Your task to perform on an android device: check storage Image 0: 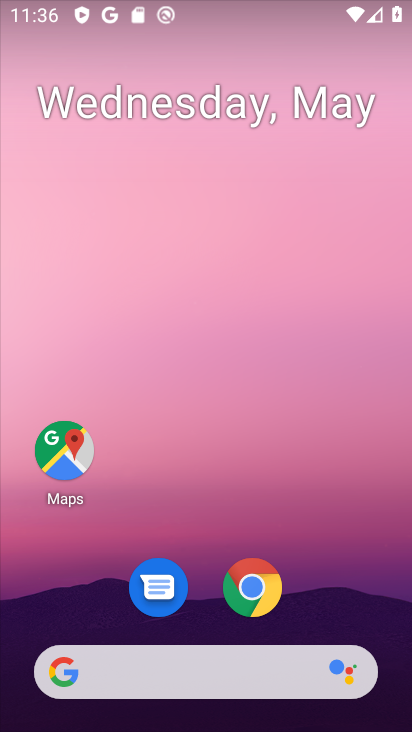
Step 0: drag from (318, 617) to (305, 17)
Your task to perform on an android device: check storage Image 1: 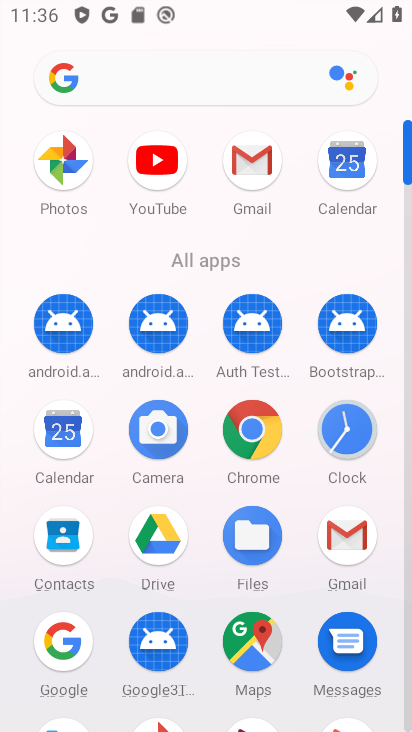
Step 1: drag from (203, 489) to (167, 52)
Your task to perform on an android device: check storage Image 2: 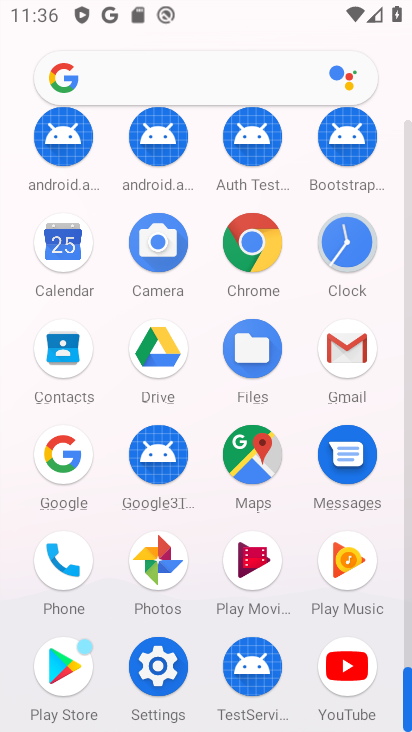
Step 2: click (170, 678)
Your task to perform on an android device: check storage Image 3: 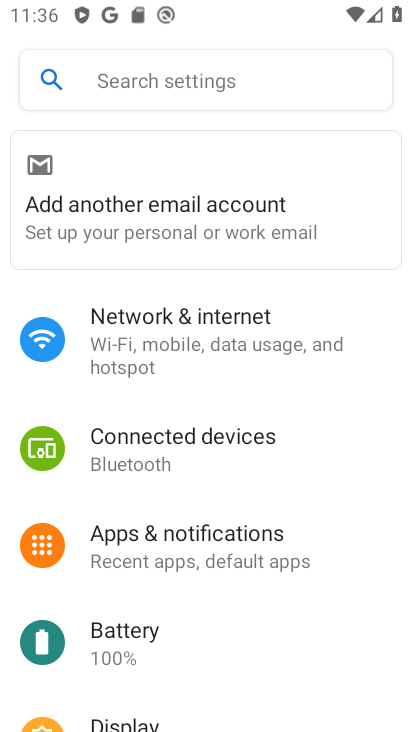
Step 3: drag from (208, 663) to (210, 184)
Your task to perform on an android device: check storage Image 4: 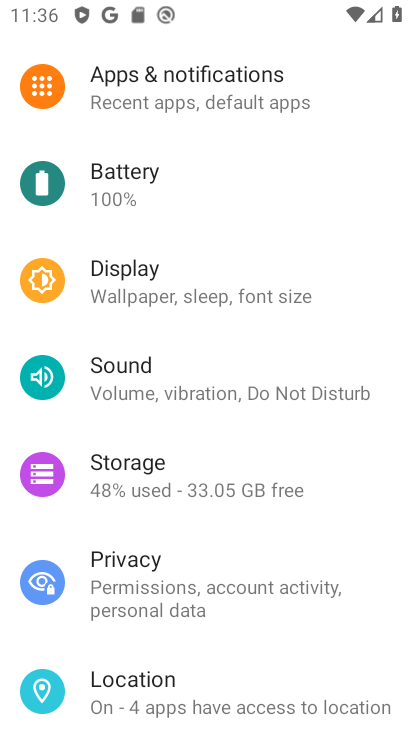
Step 4: drag from (201, 640) to (191, 213)
Your task to perform on an android device: check storage Image 5: 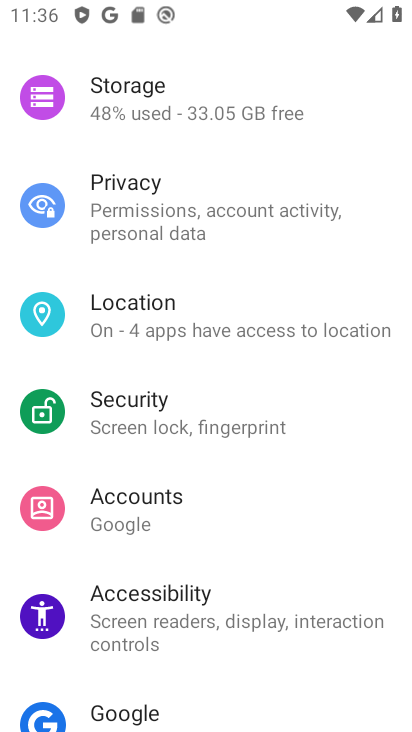
Step 5: drag from (165, 650) to (165, 244)
Your task to perform on an android device: check storage Image 6: 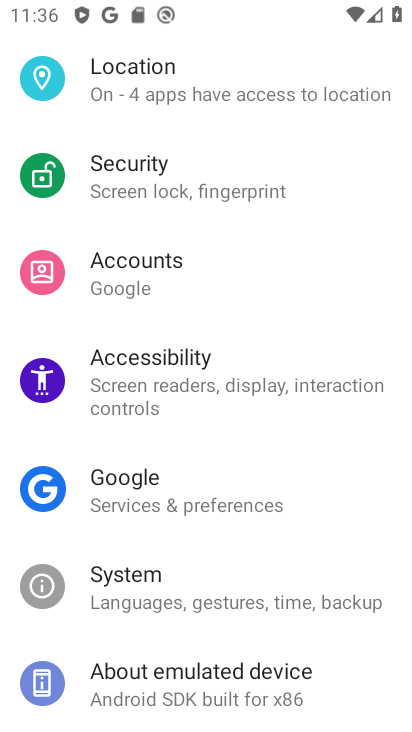
Step 6: drag from (186, 209) to (113, 630)
Your task to perform on an android device: check storage Image 7: 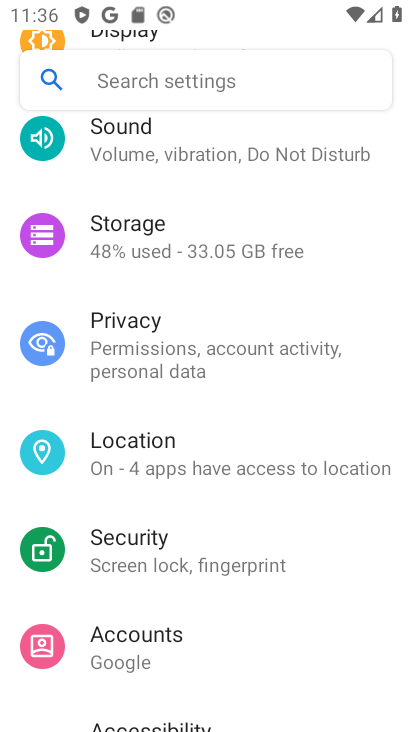
Step 7: click (121, 224)
Your task to perform on an android device: check storage Image 8: 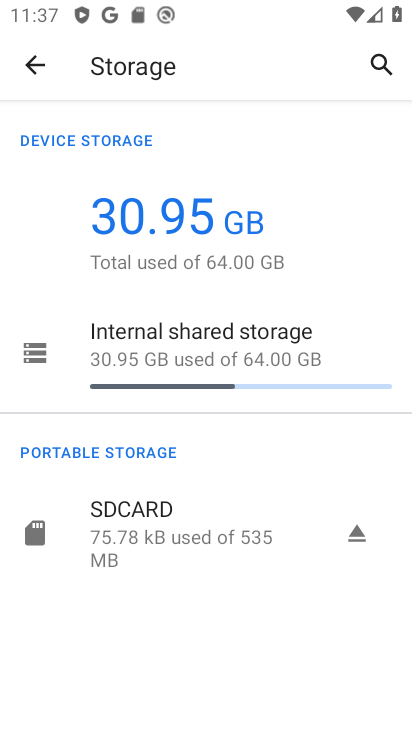
Step 8: task complete